Your task to perform on an android device: star an email in the gmail app Image 0: 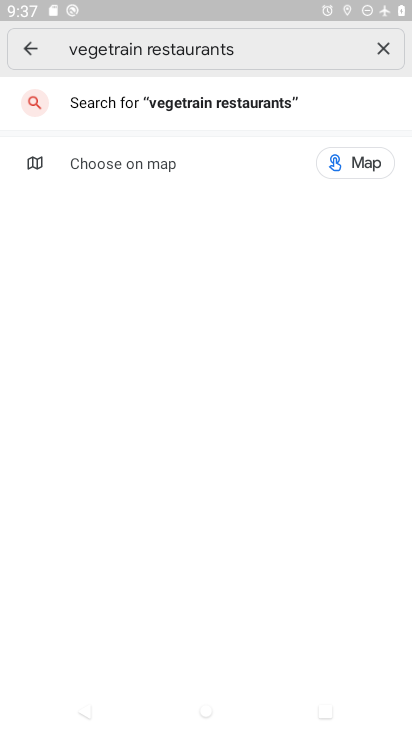
Step 0: press home button
Your task to perform on an android device: star an email in the gmail app Image 1: 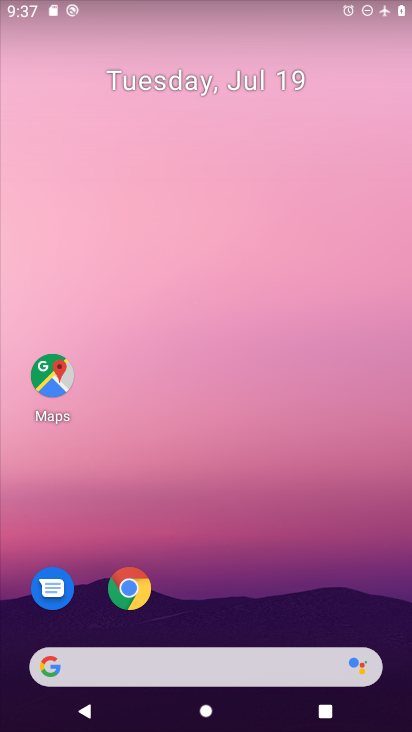
Step 1: drag from (297, 583) to (359, 171)
Your task to perform on an android device: star an email in the gmail app Image 2: 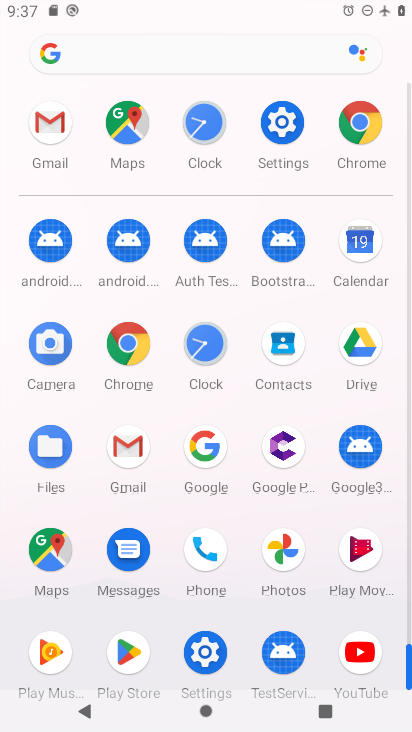
Step 2: click (138, 452)
Your task to perform on an android device: star an email in the gmail app Image 3: 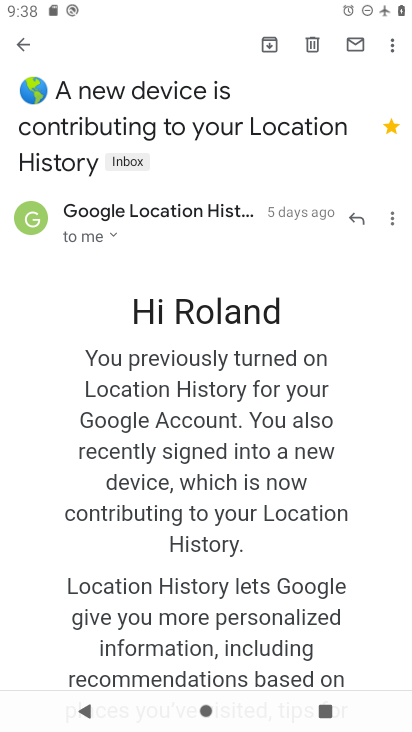
Step 3: press back button
Your task to perform on an android device: star an email in the gmail app Image 4: 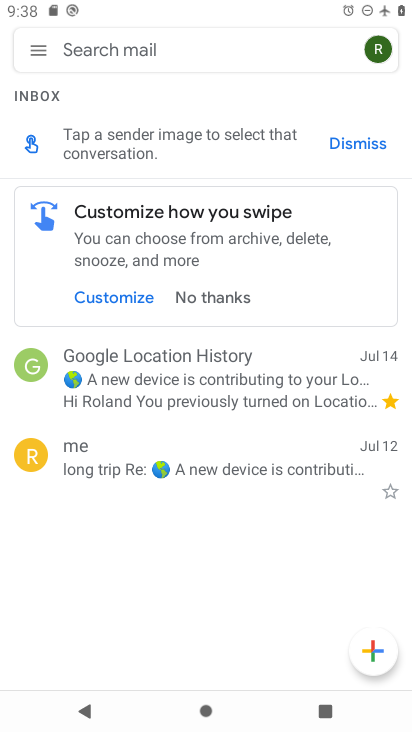
Step 4: click (385, 492)
Your task to perform on an android device: star an email in the gmail app Image 5: 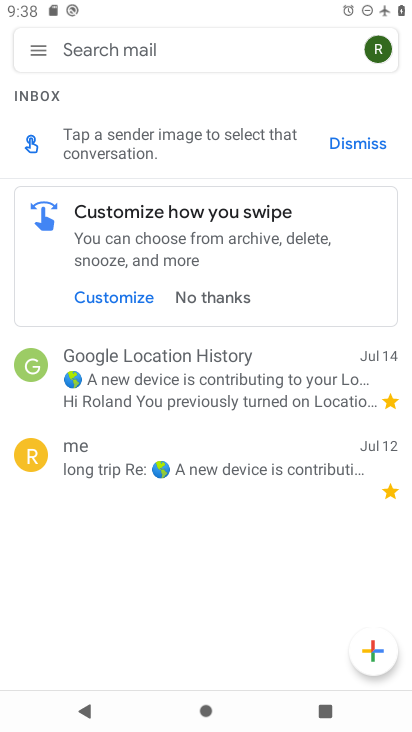
Step 5: task complete